Your task to perform on an android device: What's the weather today? Image 0: 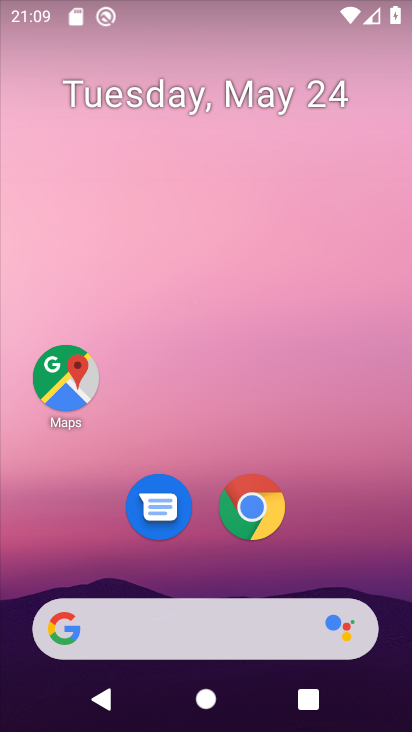
Step 0: drag from (226, 573) to (210, 143)
Your task to perform on an android device: What's the weather today? Image 1: 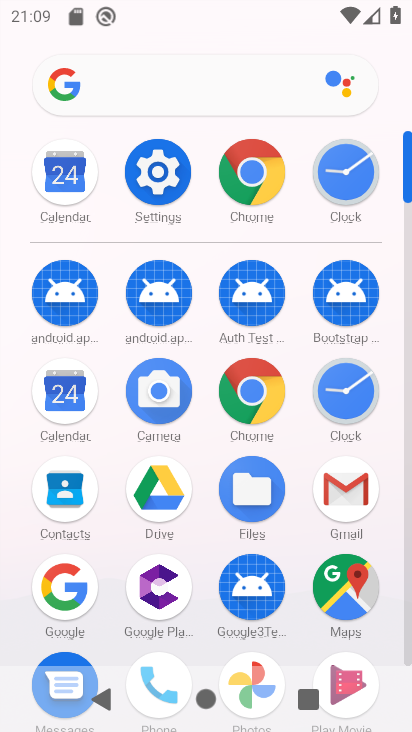
Step 1: click (157, 78)
Your task to perform on an android device: What's the weather today? Image 2: 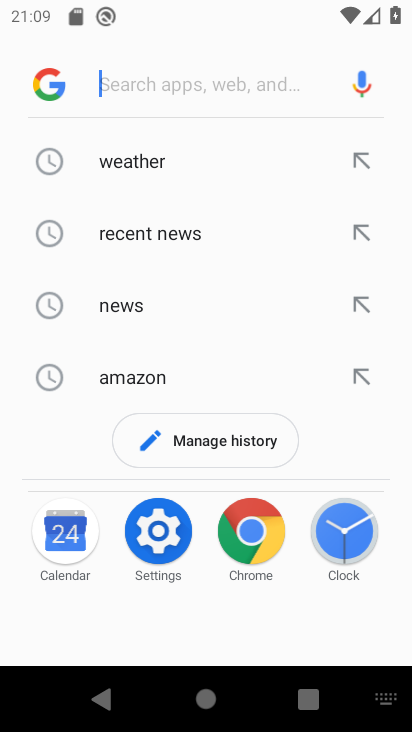
Step 2: type "weather today"
Your task to perform on an android device: What's the weather today? Image 3: 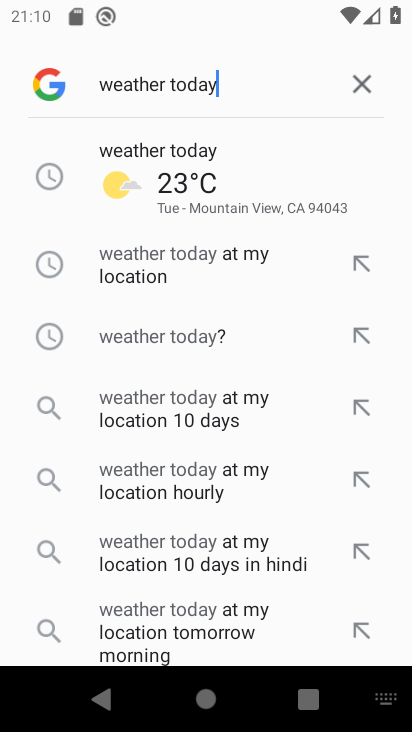
Step 3: click (229, 173)
Your task to perform on an android device: What's the weather today? Image 4: 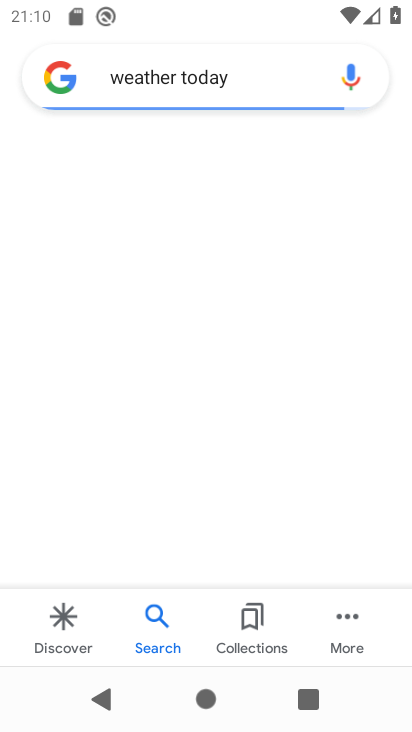
Step 4: task complete